Your task to perform on an android device: create a new album in the google photos Image 0: 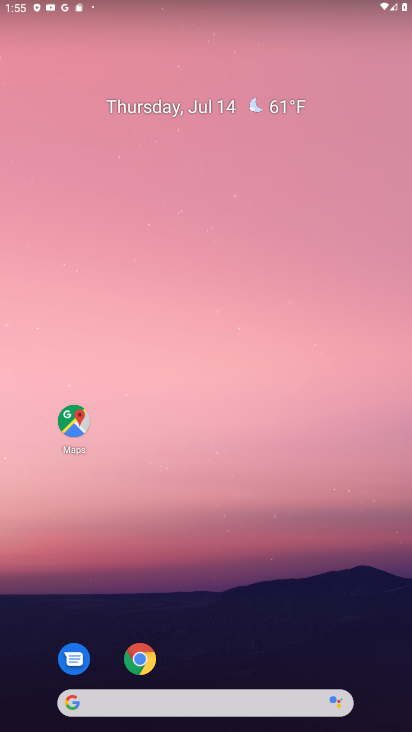
Step 0: drag from (210, 661) to (305, 15)
Your task to perform on an android device: create a new album in the google photos Image 1: 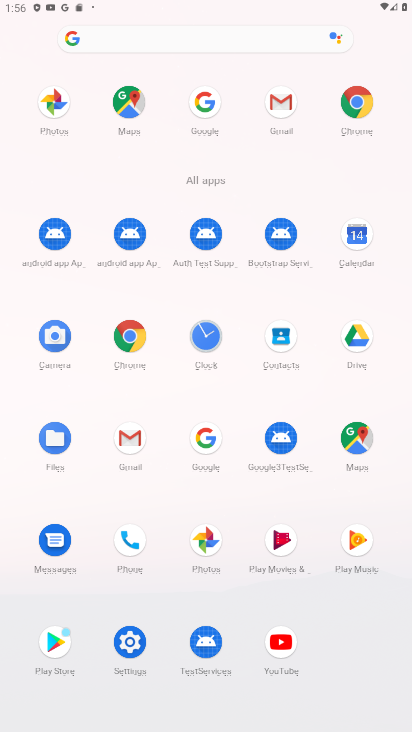
Step 1: click (210, 552)
Your task to perform on an android device: create a new album in the google photos Image 2: 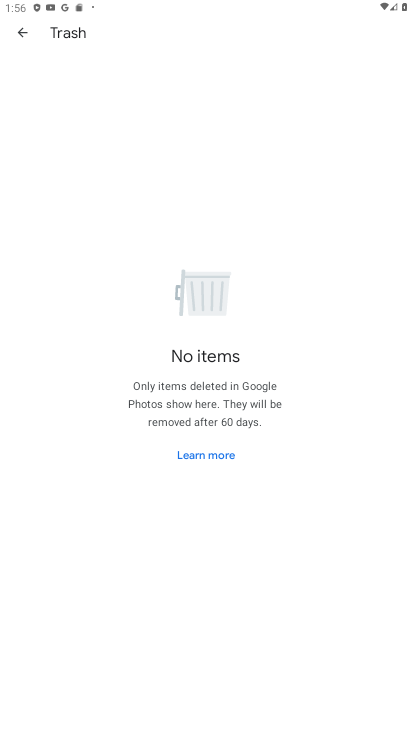
Step 2: click (26, 31)
Your task to perform on an android device: create a new album in the google photos Image 3: 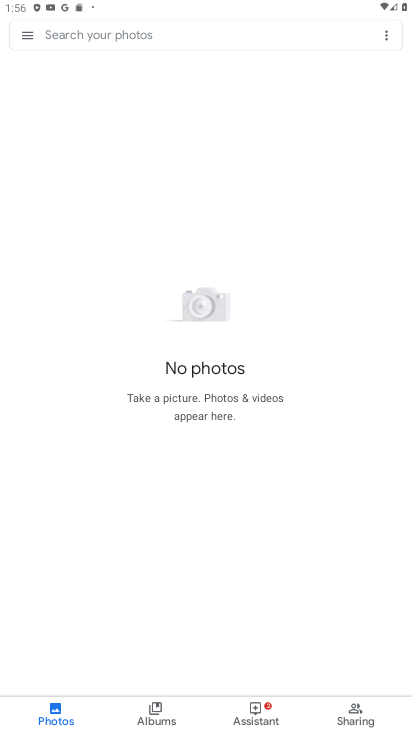
Step 3: click (24, 28)
Your task to perform on an android device: create a new album in the google photos Image 4: 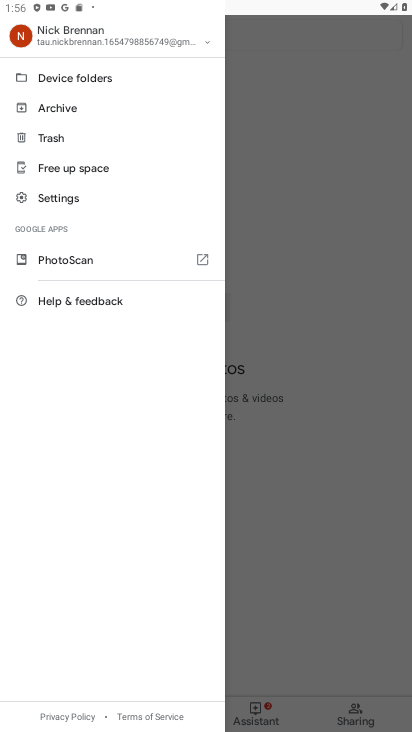
Step 4: click (284, 140)
Your task to perform on an android device: create a new album in the google photos Image 5: 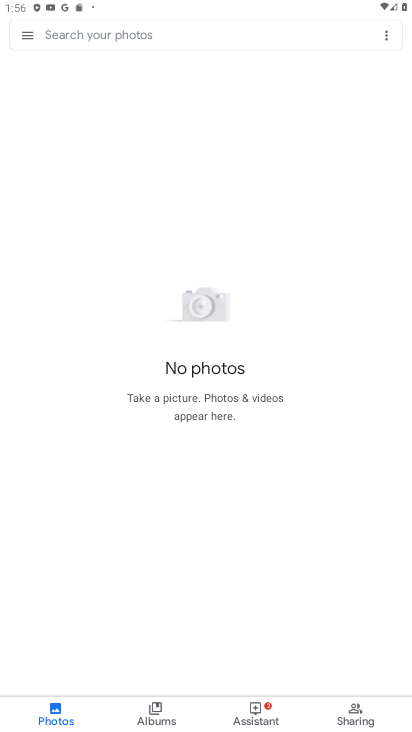
Step 5: click (165, 699)
Your task to perform on an android device: create a new album in the google photos Image 6: 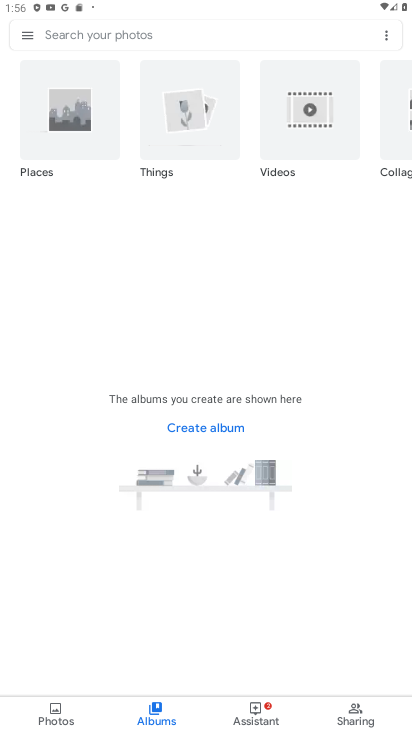
Step 6: click (192, 423)
Your task to perform on an android device: create a new album in the google photos Image 7: 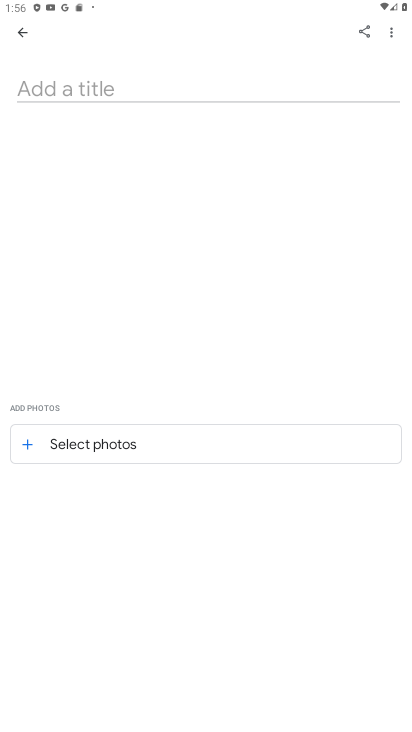
Step 7: click (183, 441)
Your task to perform on an android device: create a new album in the google photos Image 8: 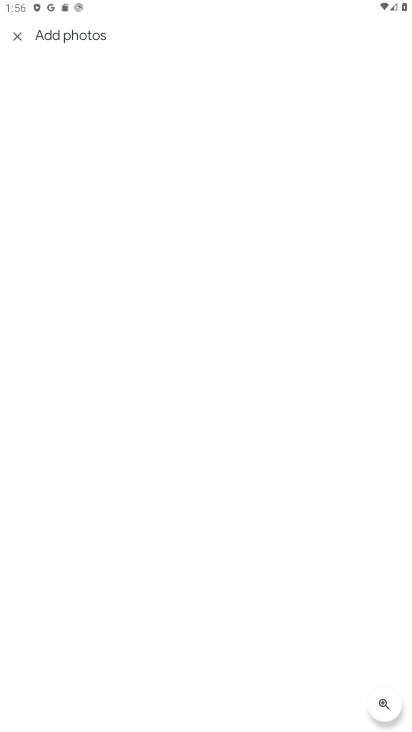
Step 8: click (11, 38)
Your task to perform on an android device: create a new album in the google photos Image 9: 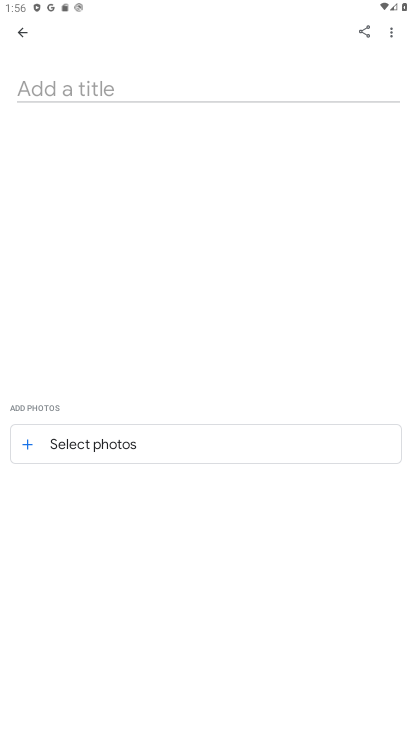
Step 9: click (42, 93)
Your task to perform on an android device: create a new album in the google photos Image 10: 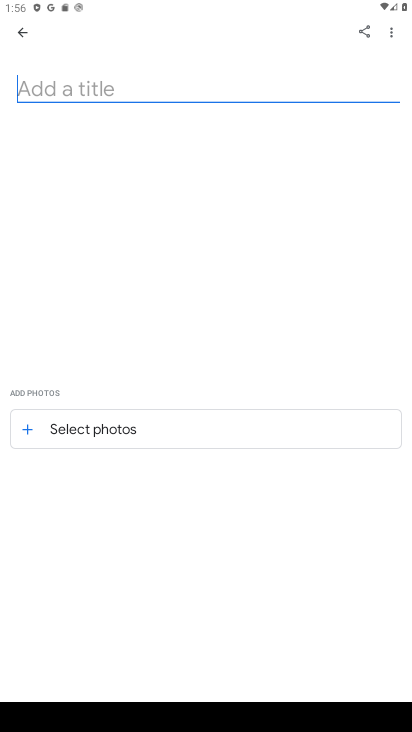
Step 10: type "dd"
Your task to perform on an android device: create a new album in the google photos Image 11: 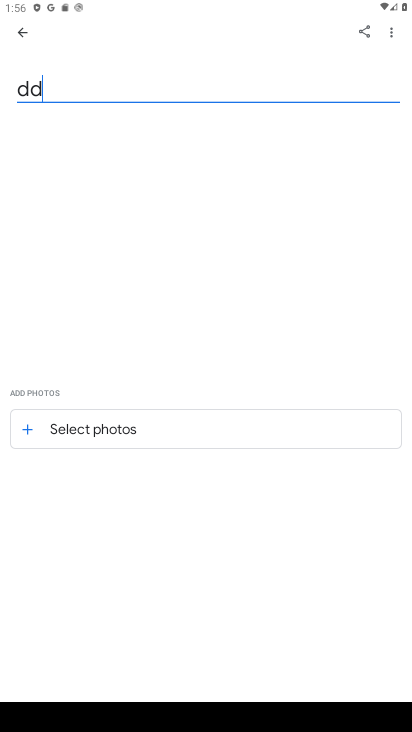
Step 11: type ""
Your task to perform on an android device: create a new album in the google photos Image 12: 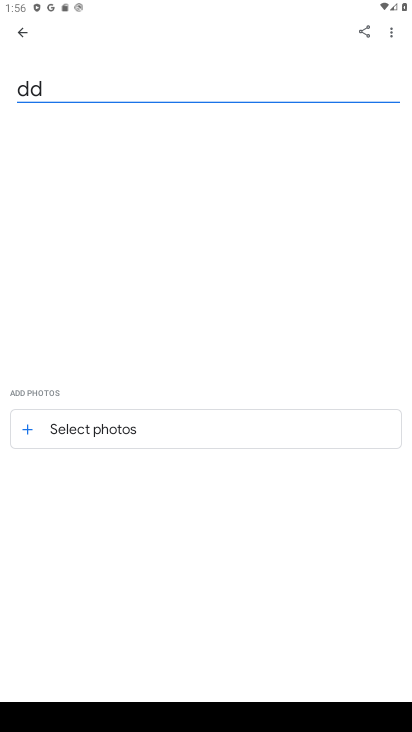
Step 12: click (386, 39)
Your task to perform on an android device: create a new album in the google photos Image 13: 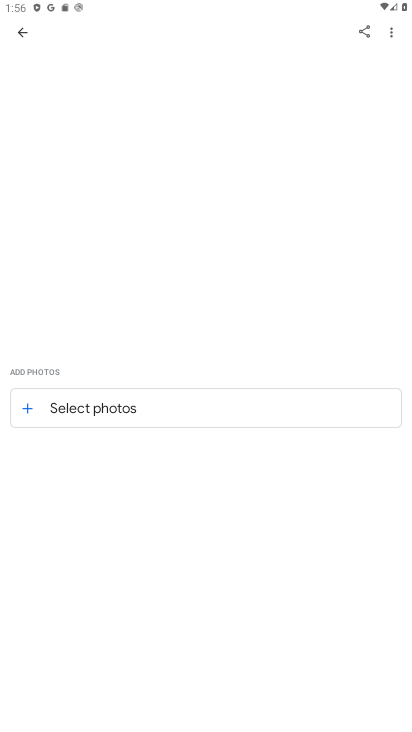
Step 13: task complete